Your task to perform on an android device: turn on sleep mode Image 0: 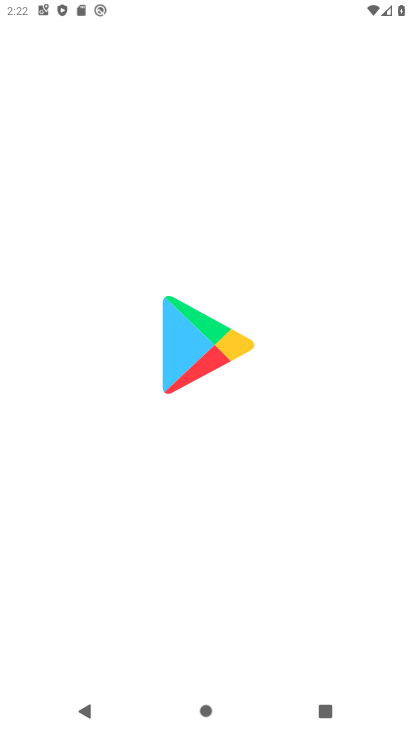
Step 0: drag from (256, 597) to (368, 126)
Your task to perform on an android device: turn on sleep mode Image 1: 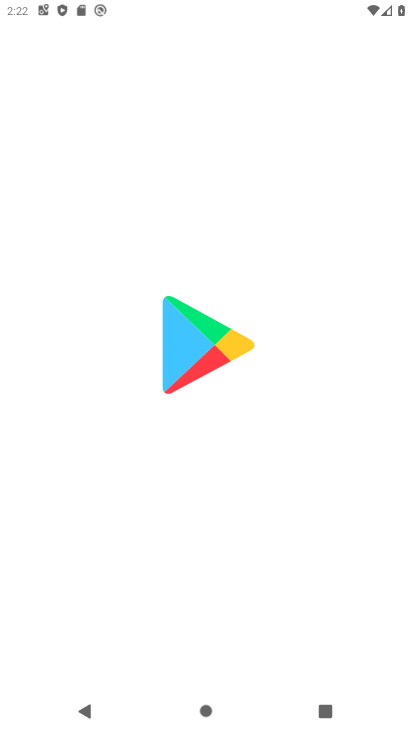
Step 1: press home button
Your task to perform on an android device: turn on sleep mode Image 2: 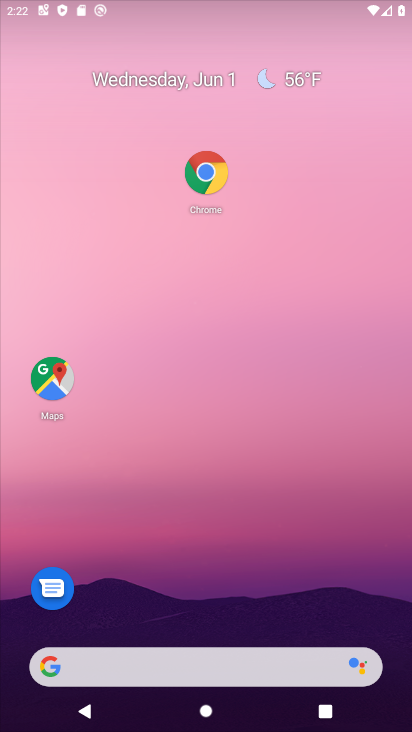
Step 2: drag from (195, 581) to (201, 91)
Your task to perform on an android device: turn on sleep mode Image 3: 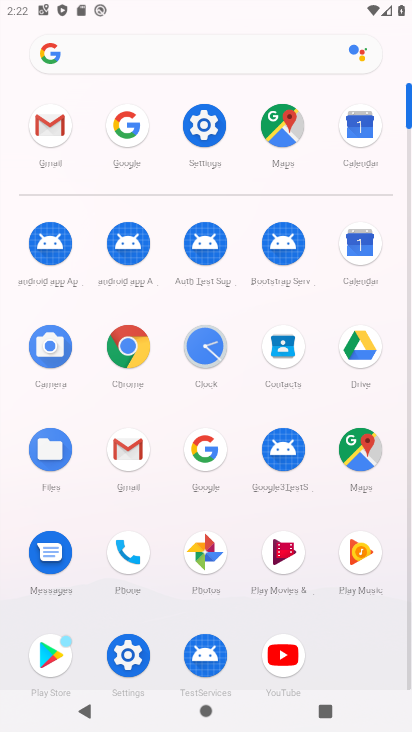
Step 3: click (204, 134)
Your task to perform on an android device: turn on sleep mode Image 4: 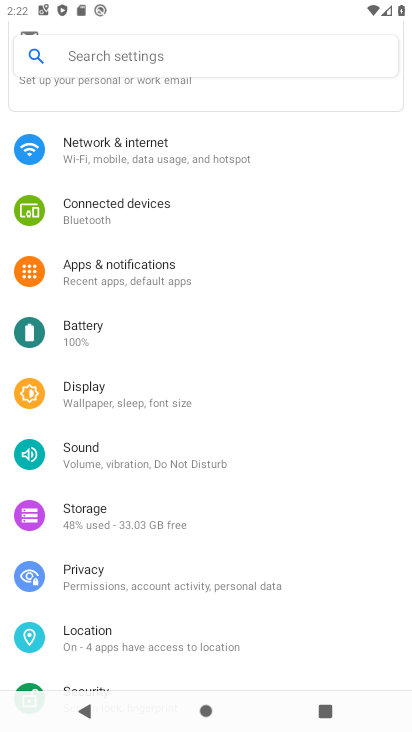
Step 4: click (133, 396)
Your task to perform on an android device: turn on sleep mode Image 5: 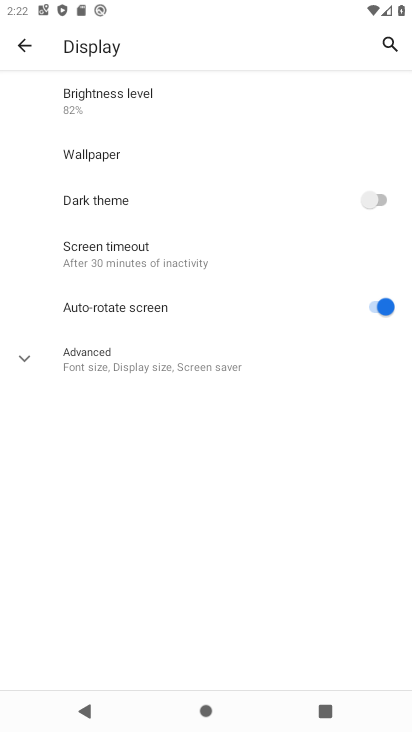
Step 5: click (115, 255)
Your task to perform on an android device: turn on sleep mode Image 6: 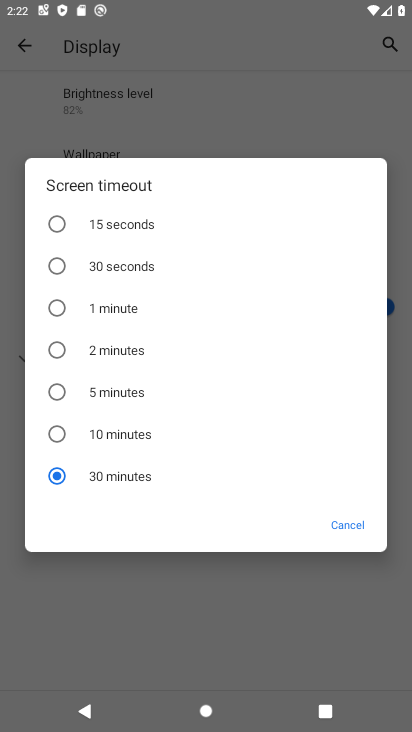
Step 6: task complete